Your task to perform on an android device: turn off notifications in google photos Image 0: 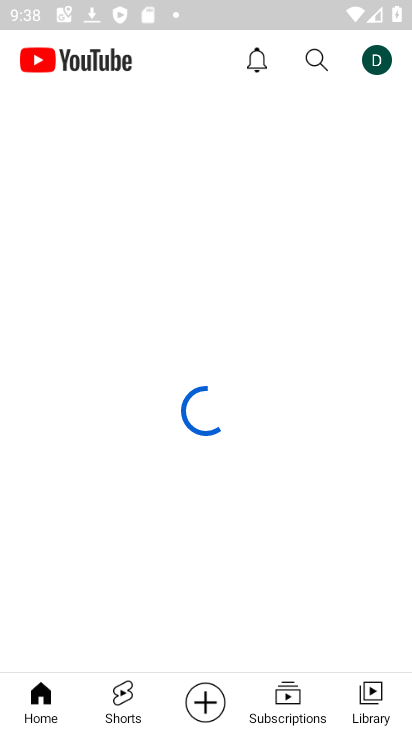
Step 0: press home button
Your task to perform on an android device: turn off notifications in google photos Image 1: 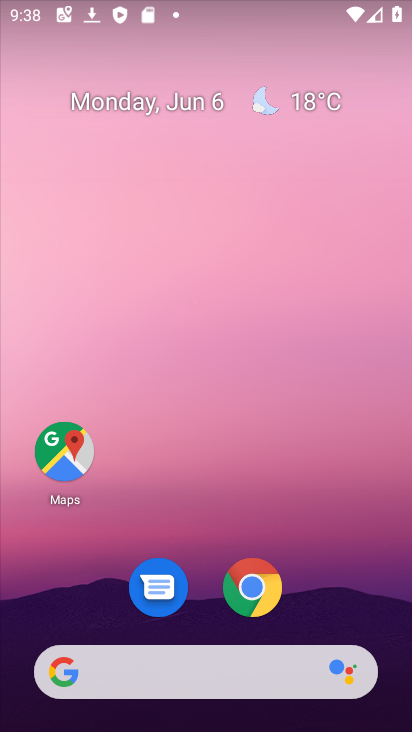
Step 1: drag from (334, 406) to (329, 139)
Your task to perform on an android device: turn off notifications in google photos Image 2: 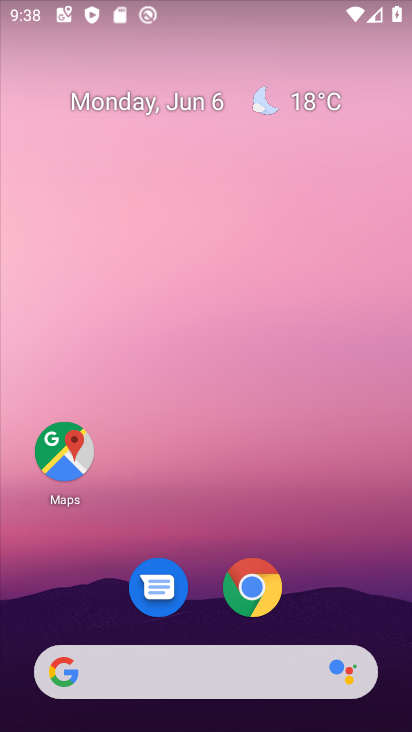
Step 2: drag from (357, 608) to (304, 176)
Your task to perform on an android device: turn off notifications in google photos Image 3: 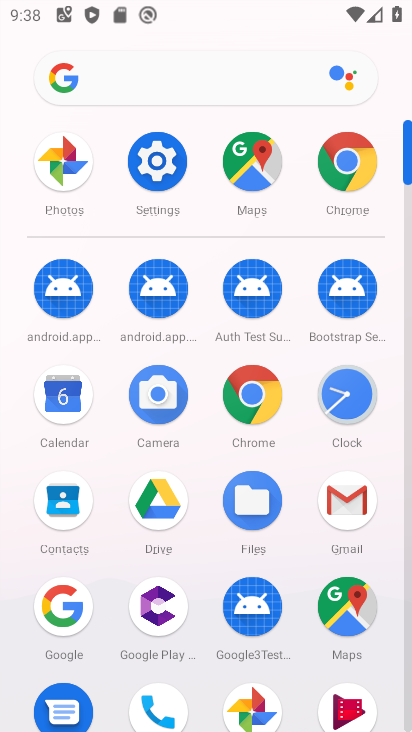
Step 3: click (243, 715)
Your task to perform on an android device: turn off notifications in google photos Image 4: 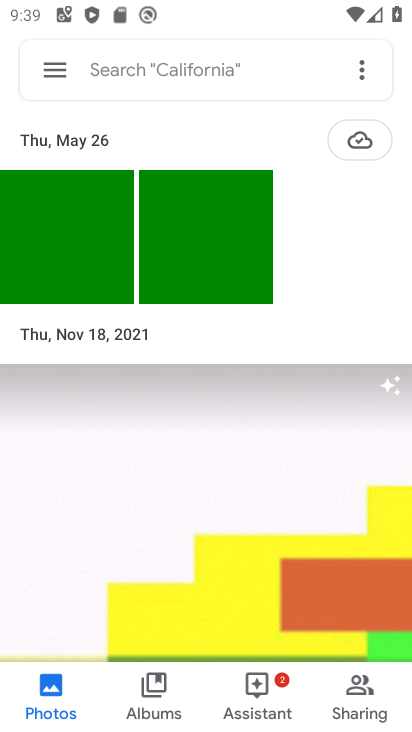
Step 4: click (52, 61)
Your task to perform on an android device: turn off notifications in google photos Image 5: 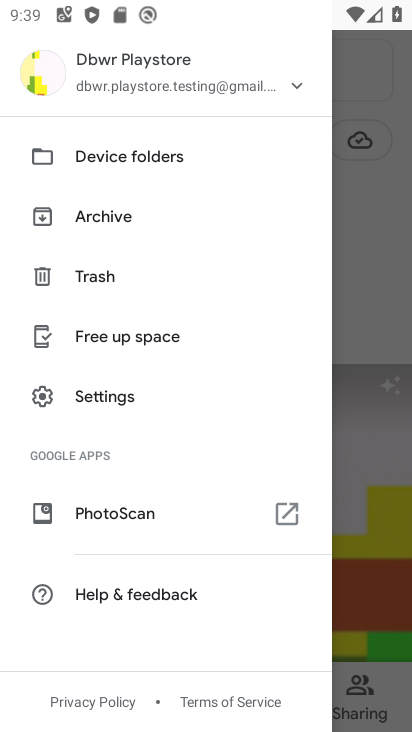
Step 5: click (135, 407)
Your task to perform on an android device: turn off notifications in google photos Image 6: 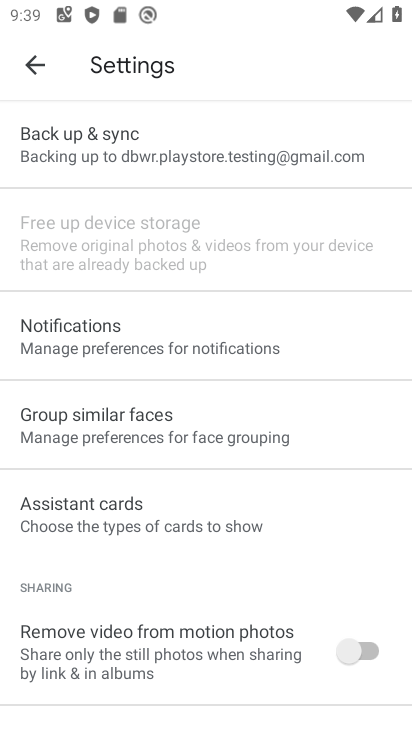
Step 6: click (144, 345)
Your task to perform on an android device: turn off notifications in google photos Image 7: 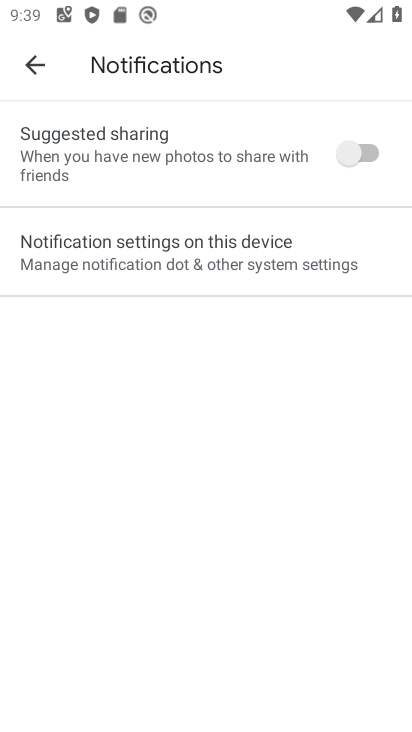
Step 7: click (164, 263)
Your task to perform on an android device: turn off notifications in google photos Image 8: 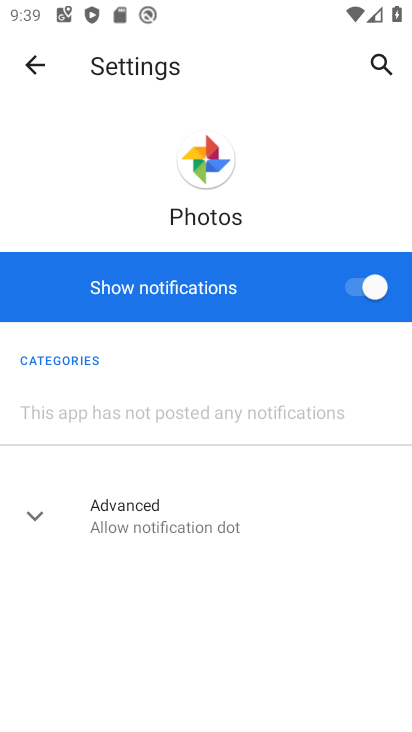
Step 8: click (348, 287)
Your task to perform on an android device: turn off notifications in google photos Image 9: 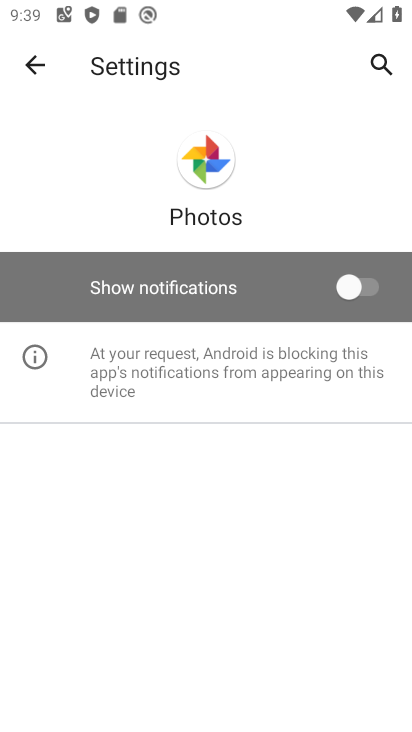
Step 9: task complete